Your task to perform on an android device: change the clock display to digital Image 0: 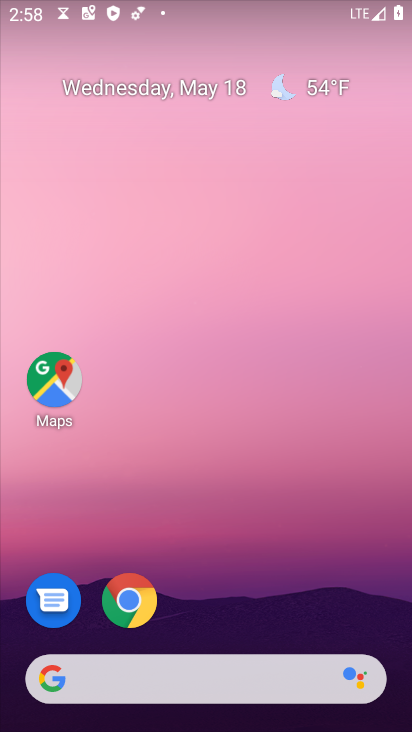
Step 0: press home button
Your task to perform on an android device: change the clock display to digital Image 1: 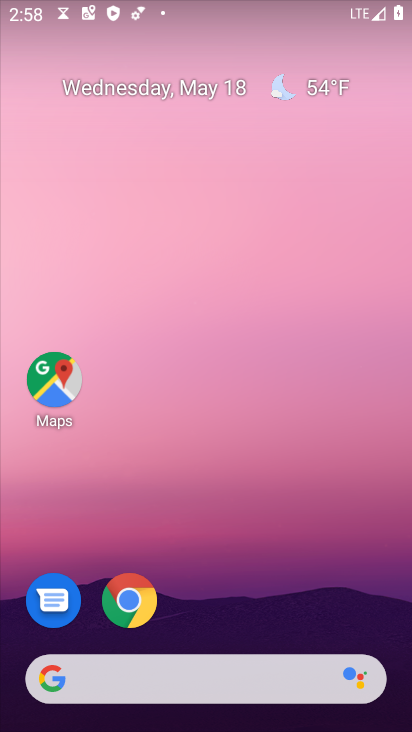
Step 1: drag from (191, 653) to (335, 105)
Your task to perform on an android device: change the clock display to digital Image 2: 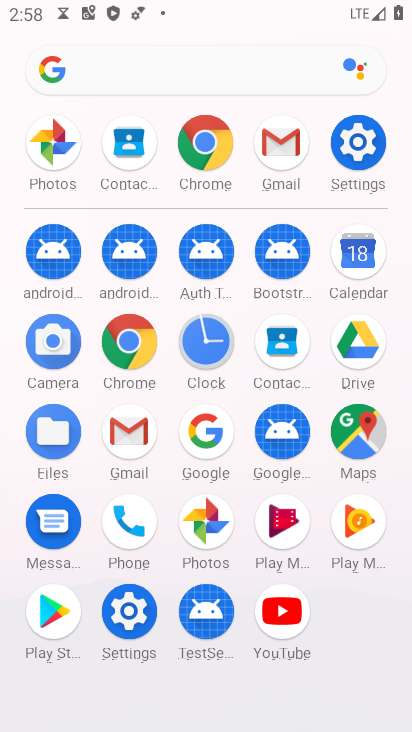
Step 2: click (223, 348)
Your task to perform on an android device: change the clock display to digital Image 3: 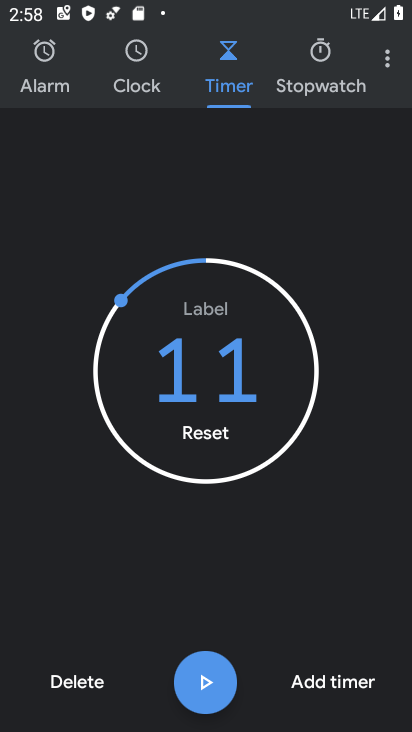
Step 3: click (384, 61)
Your task to perform on an android device: change the clock display to digital Image 4: 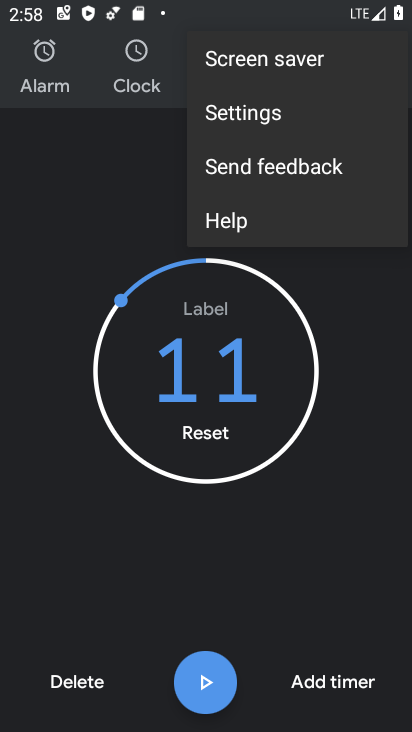
Step 4: click (250, 109)
Your task to perform on an android device: change the clock display to digital Image 5: 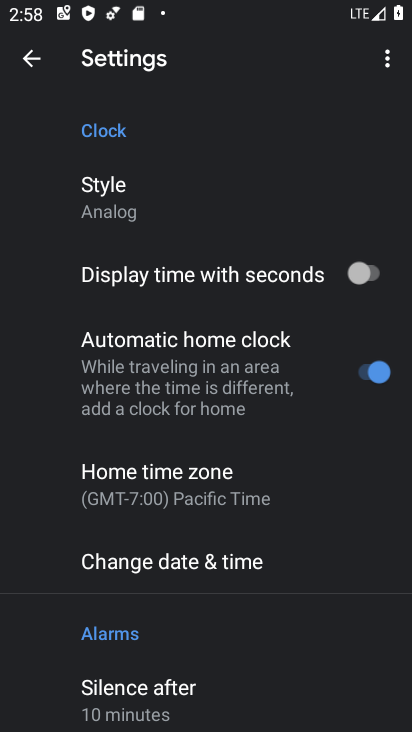
Step 5: click (101, 197)
Your task to perform on an android device: change the clock display to digital Image 6: 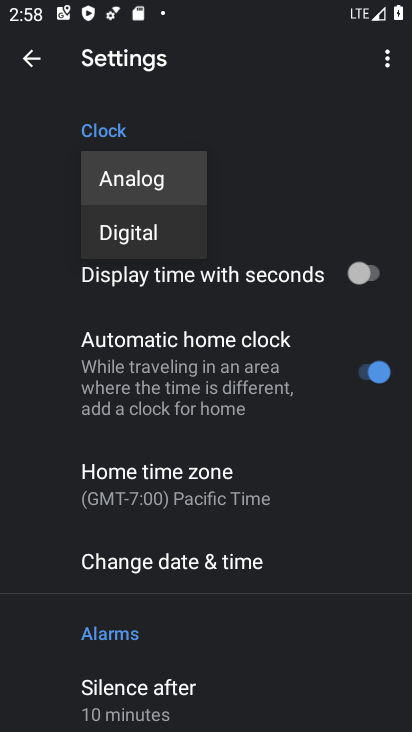
Step 6: click (149, 224)
Your task to perform on an android device: change the clock display to digital Image 7: 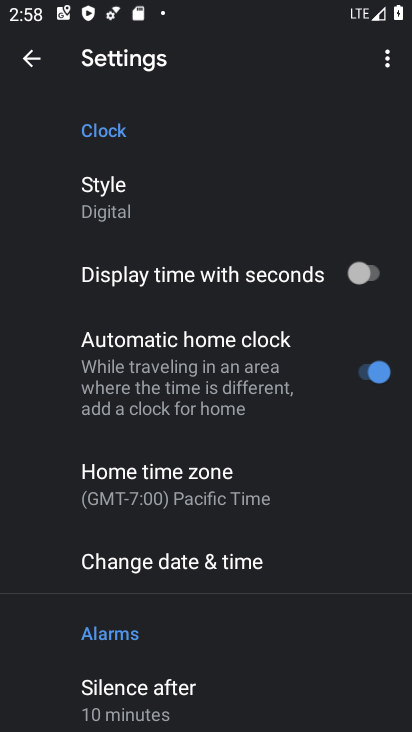
Step 7: task complete